Your task to perform on an android device: Show me the alarms in the clock app Image 0: 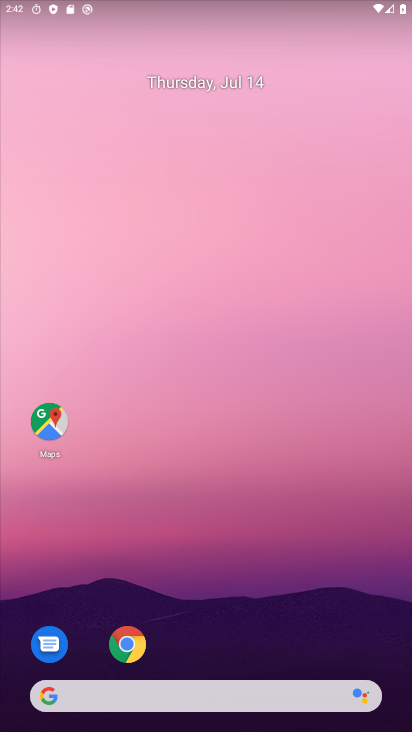
Step 0: drag from (33, 639) to (95, 344)
Your task to perform on an android device: Show me the alarms in the clock app Image 1: 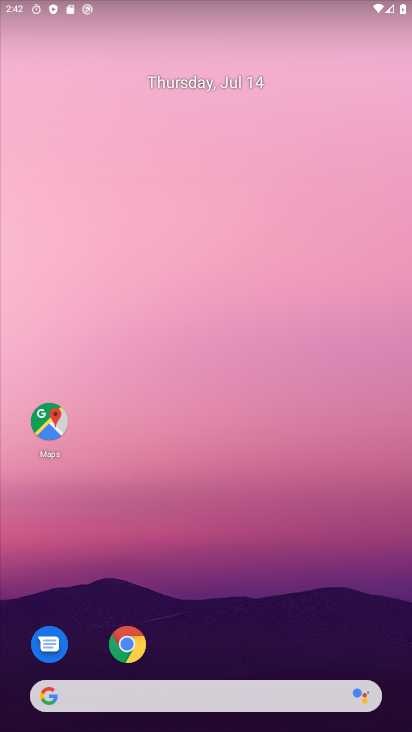
Step 1: drag from (29, 692) to (290, 39)
Your task to perform on an android device: Show me the alarms in the clock app Image 2: 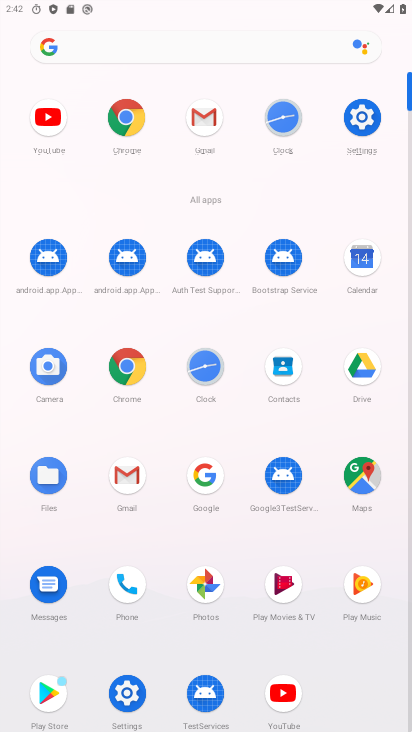
Step 2: click (205, 350)
Your task to perform on an android device: Show me the alarms in the clock app Image 3: 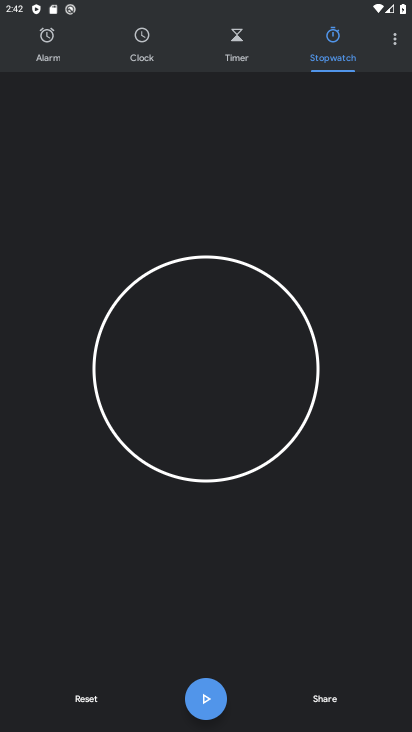
Step 3: click (132, 51)
Your task to perform on an android device: Show me the alarms in the clock app Image 4: 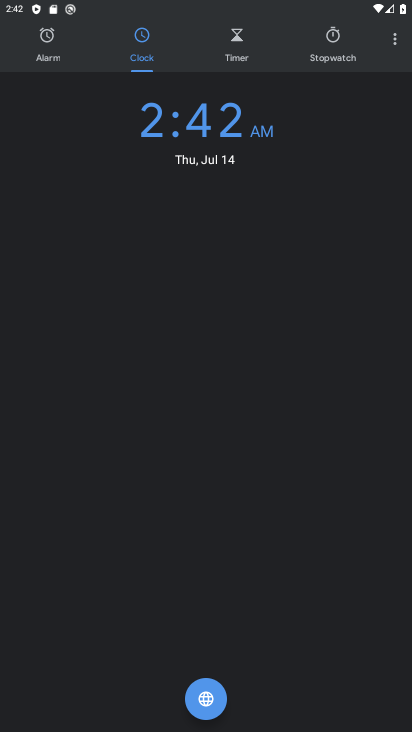
Step 4: click (54, 41)
Your task to perform on an android device: Show me the alarms in the clock app Image 5: 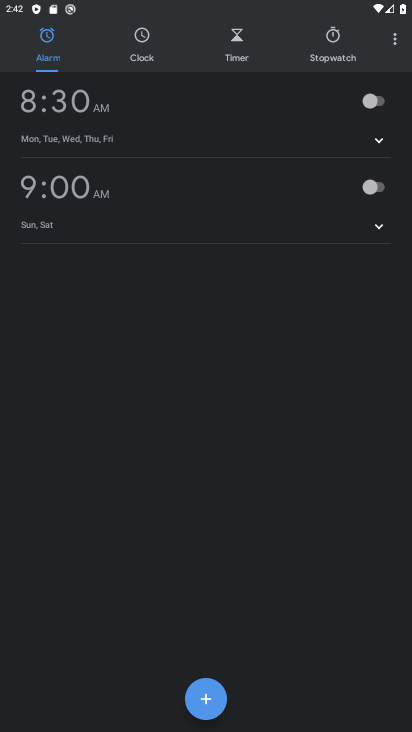
Step 5: task complete